Your task to perform on an android device: Open the stopwatch Image 0: 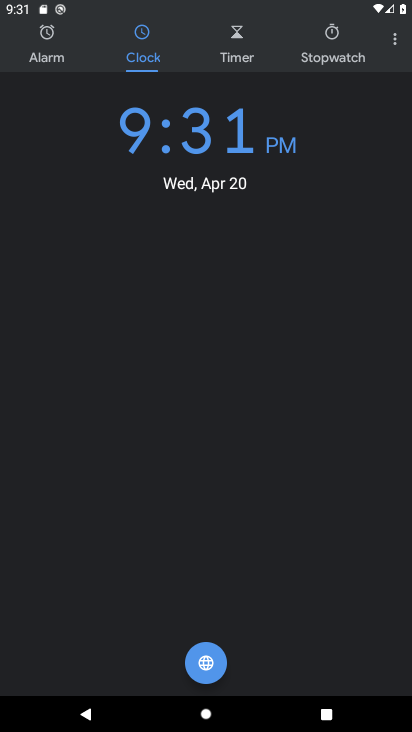
Step 0: press back button
Your task to perform on an android device: Open the stopwatch Image 1: 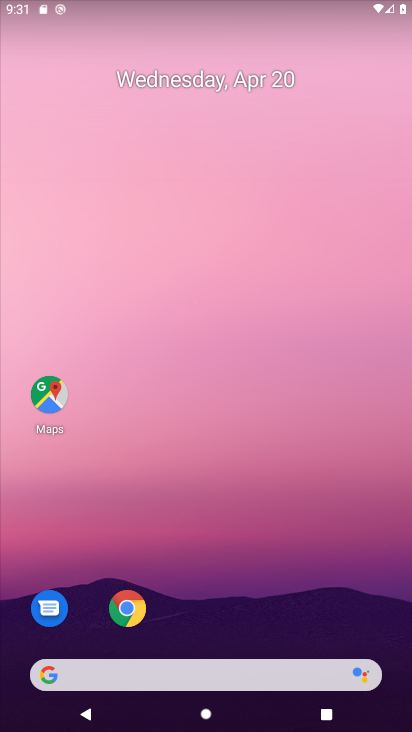
Step 1: drag from (146, 615) to (144, 125)
Your task to perform on an android device: Open the stopwatch Image 2: 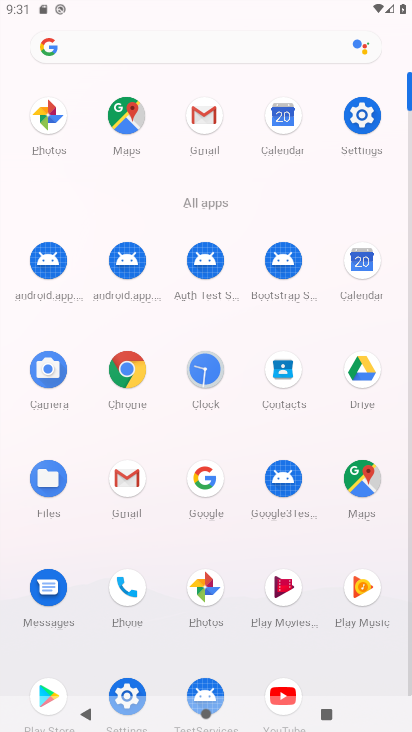
Step 2: click (196, 374)
Your task to perform on an android device: Open the stopwatch Image 3: 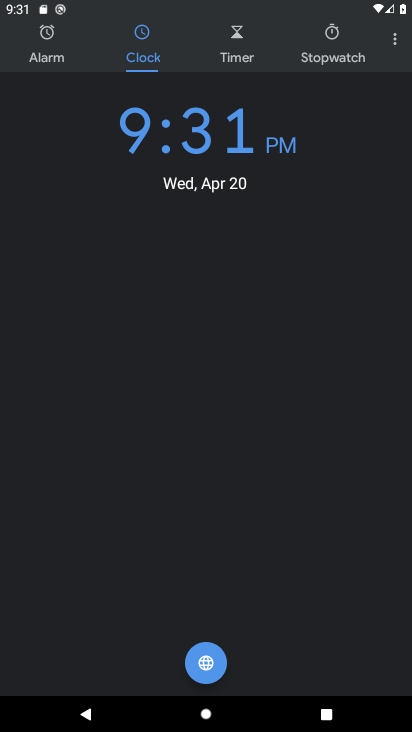
Step 3: click (337, 32)
Your task to perform on an android device: Open the stopwatch Image 4: 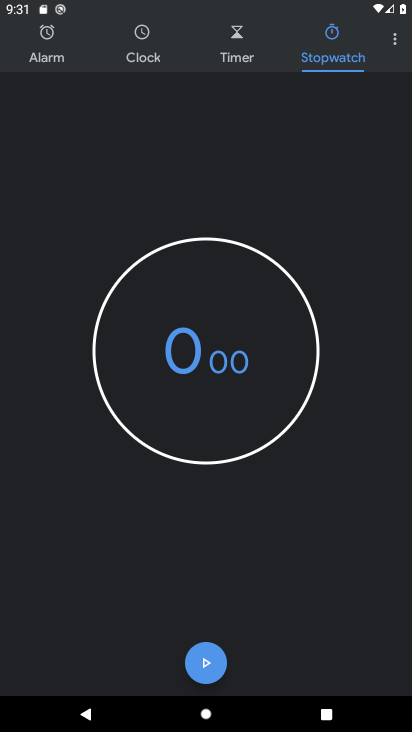
Step 4: task complete